Your task to perform on an android device: manage bookmarks in the chrome app Image 0: 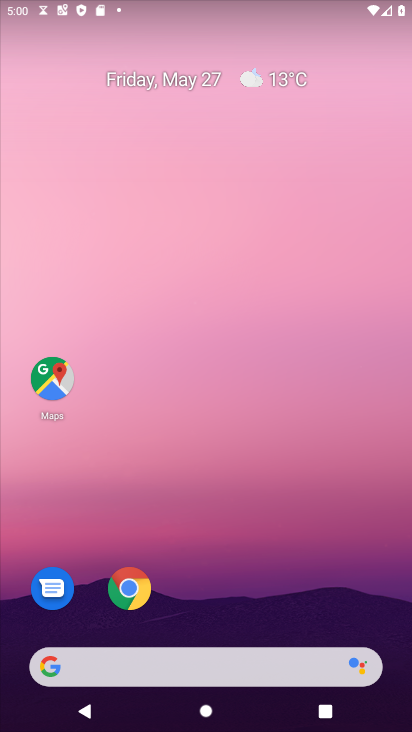
Step 0: click (122, 577)
Your task to perform on an android device: manage bookmarks in the chrome app Image 1: 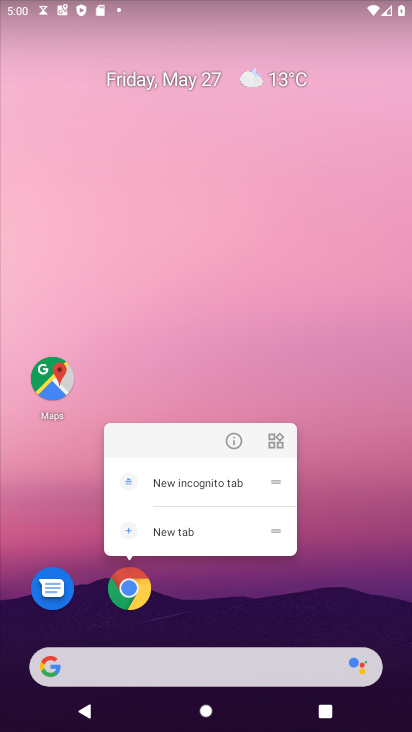
Step 1: click (128, 595)
Your task to perform on an android device: manage bookmarks in the chrome app Image 2: 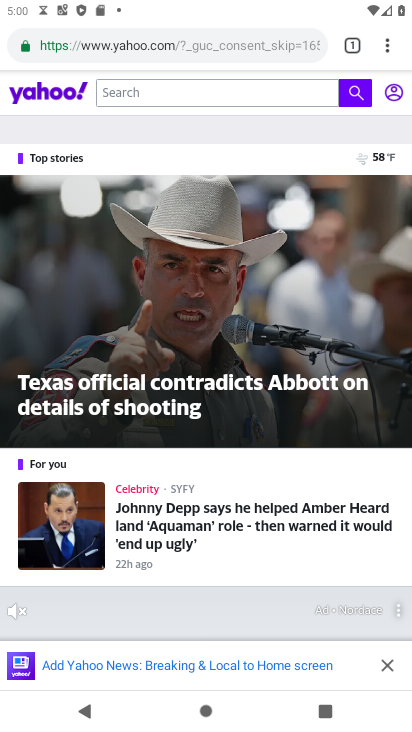
Step 2: task complete